Your task to perform on an android device: search for starred emails in the gmail app Image 0: 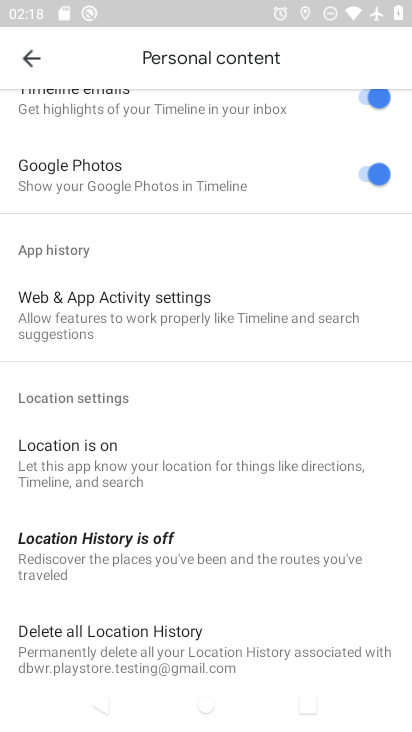
Step 0: press home button
Your task to perform on an android device: search for starred emails in the gmail app Image 1: 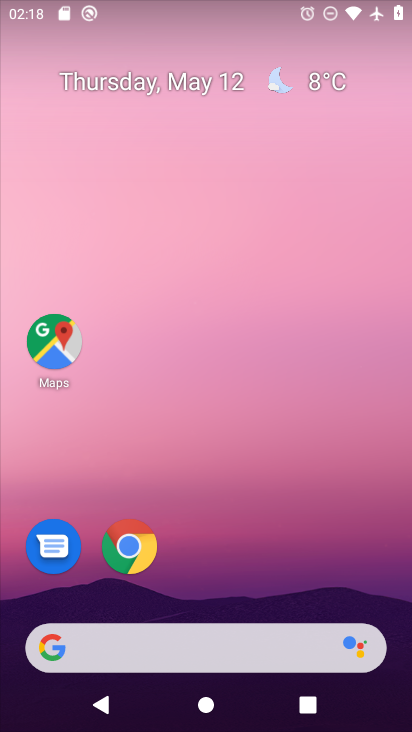
Step 1: drag from (163, 645) to (257, 212)
Your task to perform on an android device: search for starred emails in the gmail app Image 2: 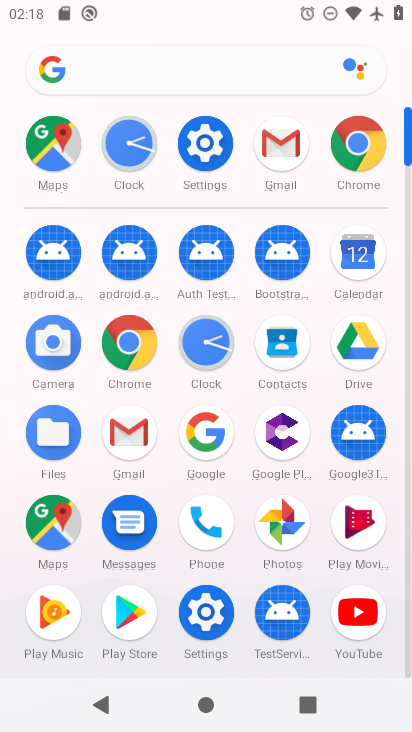
Step 2: click (283, 153)
Your task to perform on an android device: search for starred emails in the gmail app Image 3: 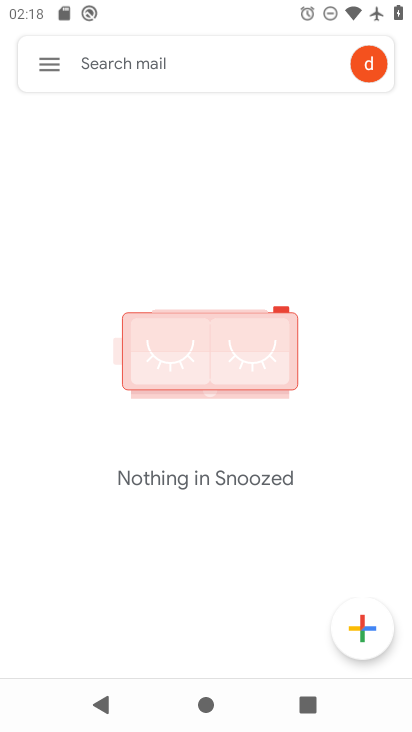
Step 3: click (43, 65)
Your task to perform on an android device: search for starred emails in the gmail app Image 4: 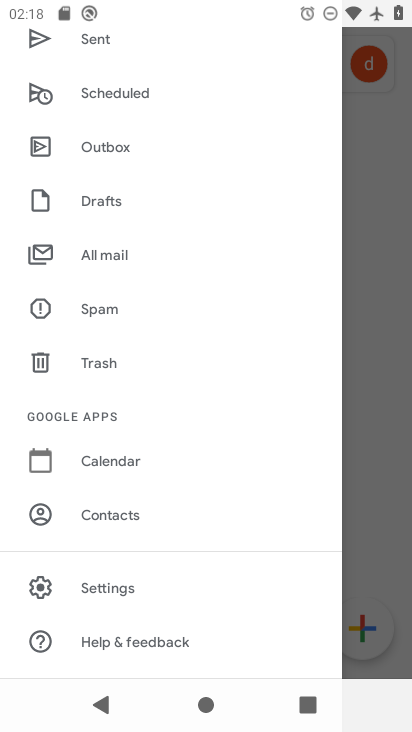
Step 4: drag from (188, 134) to (138, 501)
Your task to perform on an android device: search for starred emails in the gmail app Image 5: 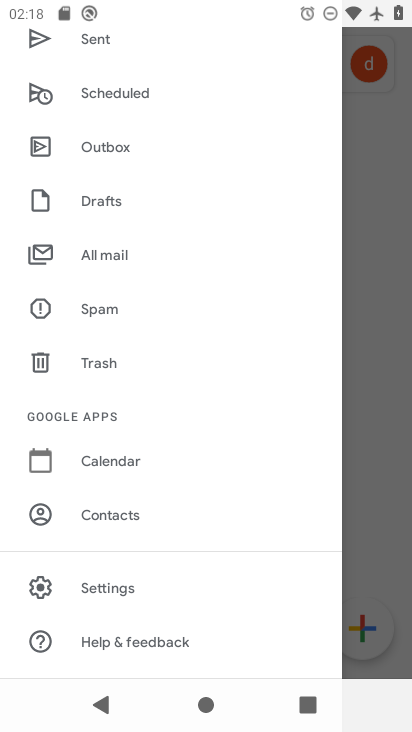
Step 5: drag from (106, 109) to (101, 593)
Your task to perform on an android device: search for starred emails in the gmail app Image 6: 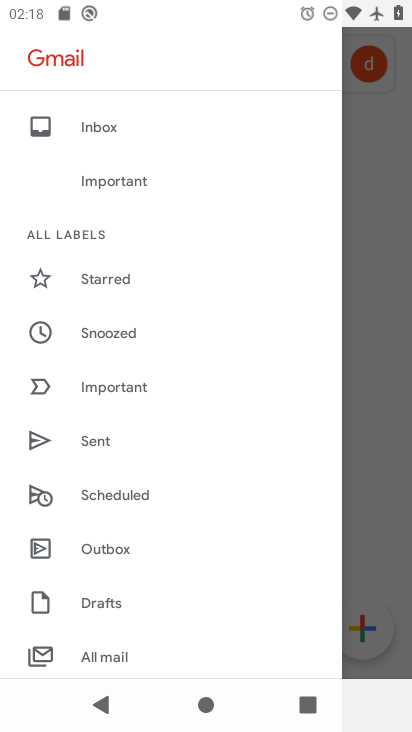
Step 6: click (111, 280)
Your task to perform on an android device: search for starred emails in the gmail app Image 7: 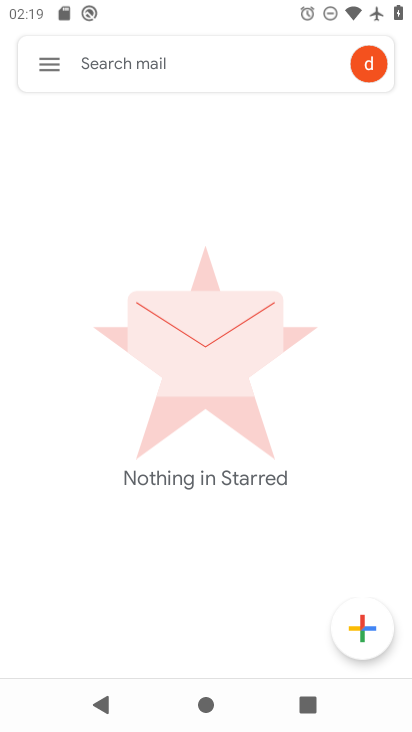
Step 7: task complete